Your task to perform on an android device: toggle wifi Image 0: 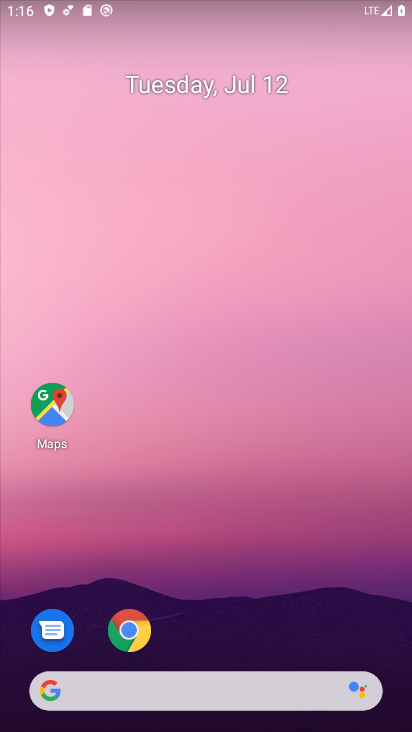
Step 0: drag from (367, 635) to (284, 116)
Your task to perform on an android device: toggle wifi Image 1: 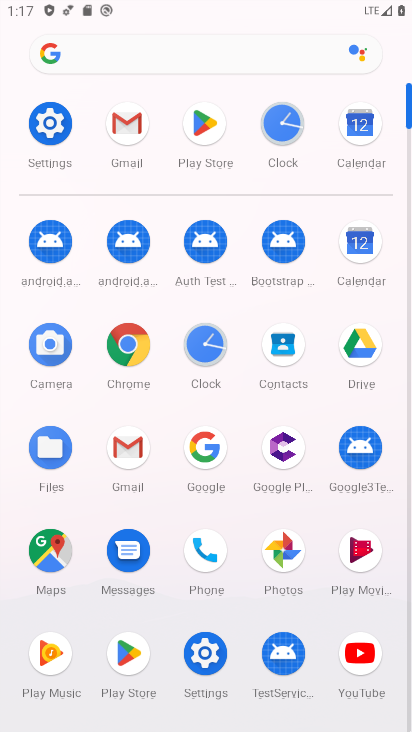
Step 1: click (205, 644)
Your task to perform on an android device: toggle wifi Image 2: 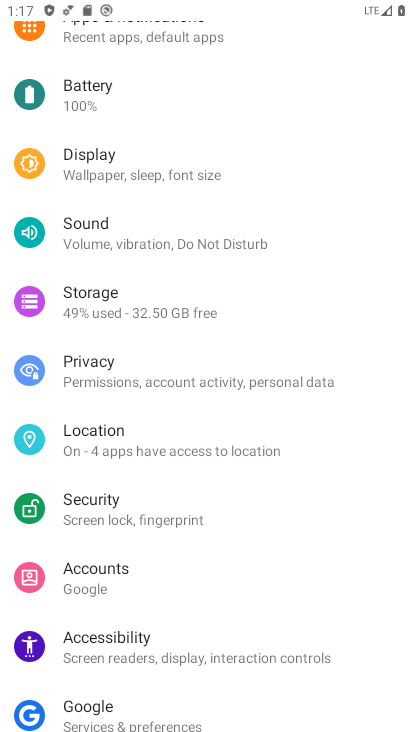
Step 2: drag from (345, 136) to (382, 478)
Your task to perform on an android device: toggle wifi Image 3: 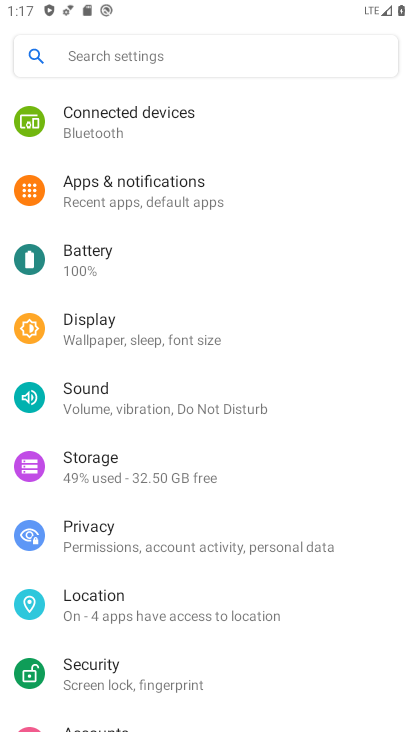
Step 3: drag from (241, 143) to (303, 480)
Your task to perform on an android device: toggle wifi Image 4: 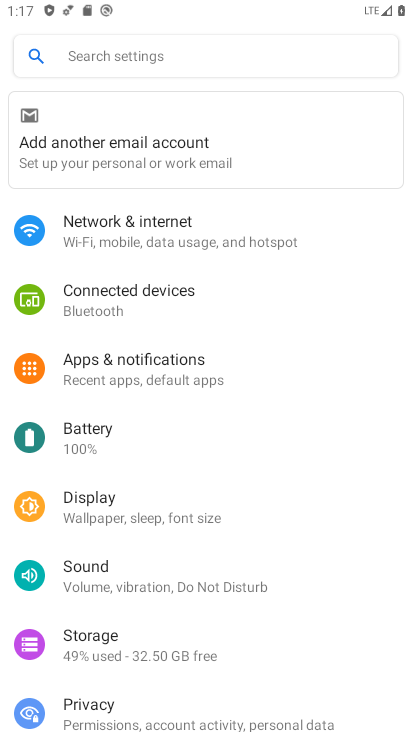
Step 4: click (128, 222)
Your task to perform on an android device: toggle wifi Image 5: 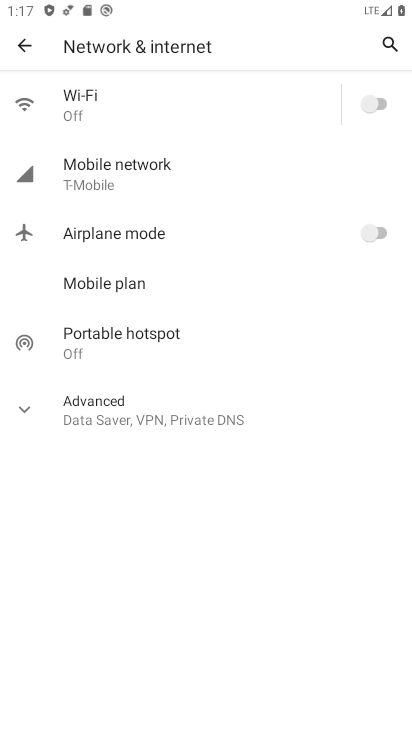
Step 5: click (385, 101)
Your task to perform on an android device: toggle wifi Image 6: 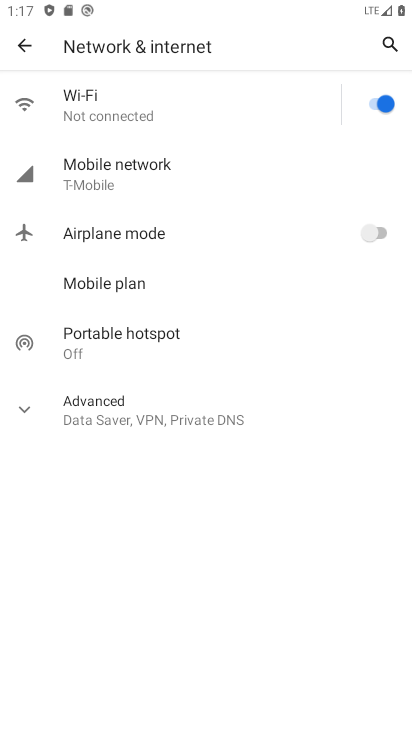
Step 6: task complete